Your task to perform on an android device: Go to Maps Image 0: 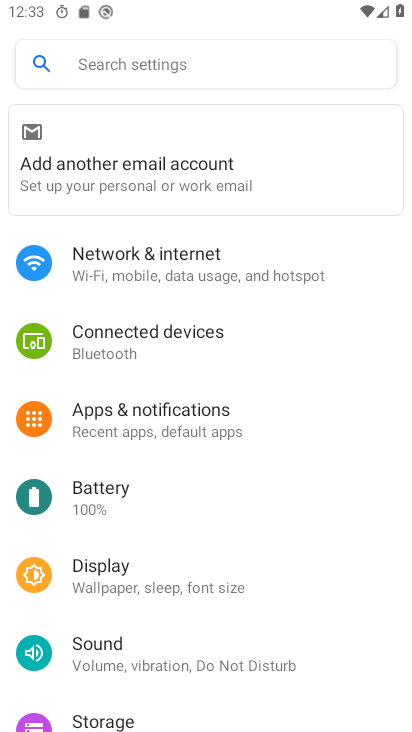
Step 0: drag from (156, 612) to (285, 145)
Your task to perform on an android device: Go to Maps Image 1: 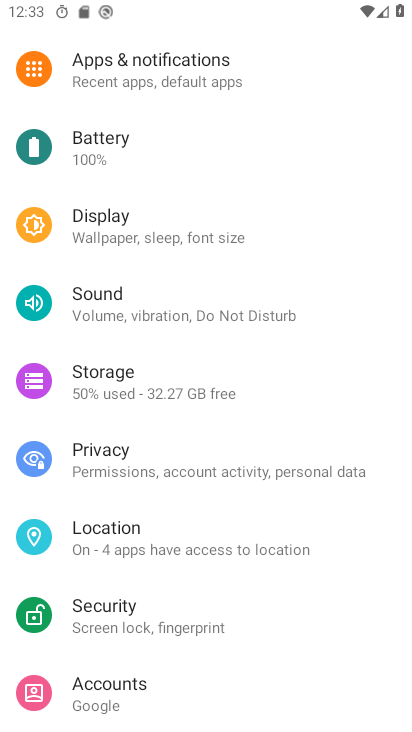
Step 1: press home button
Your task to perform on an android device: Go to Maps Image 2: 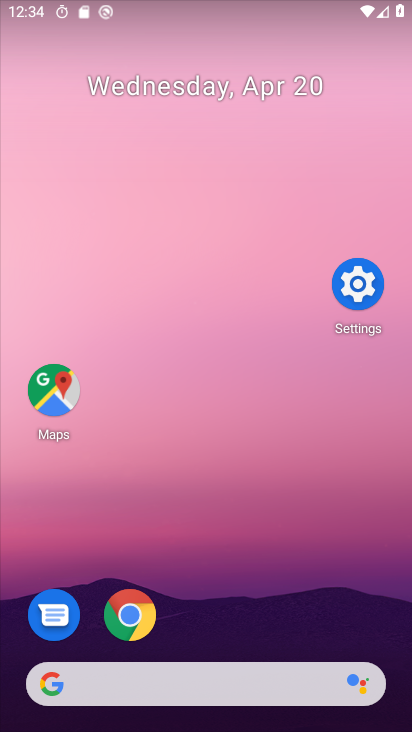
Step 2: drag from (231, 554) to (312, 318)
Your task to perform on an android device: Go to Maps Image 3: 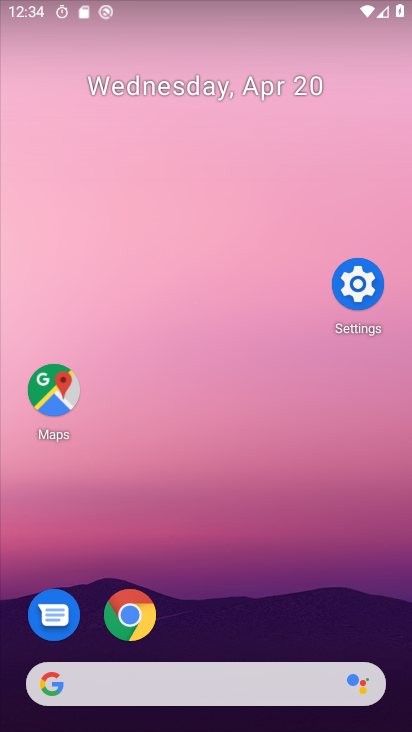
Step 3: drag from (200, 623) to (275, 327)
Your task to perform on an android device: Go to Maps Image 4: 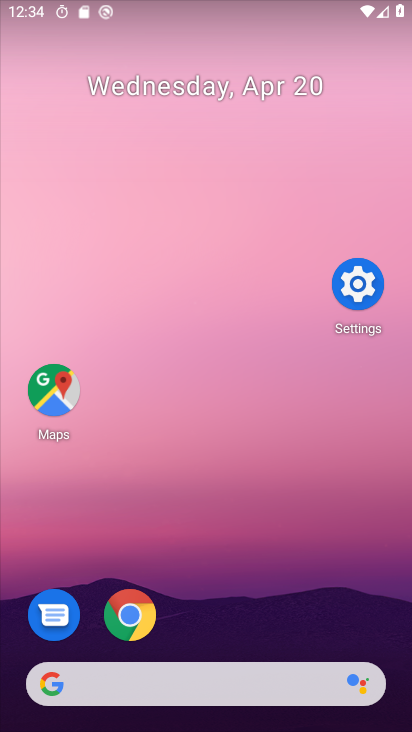
Step 4: click (54, 382)
Your task to perform on an android device: Go to Maps Image 5: 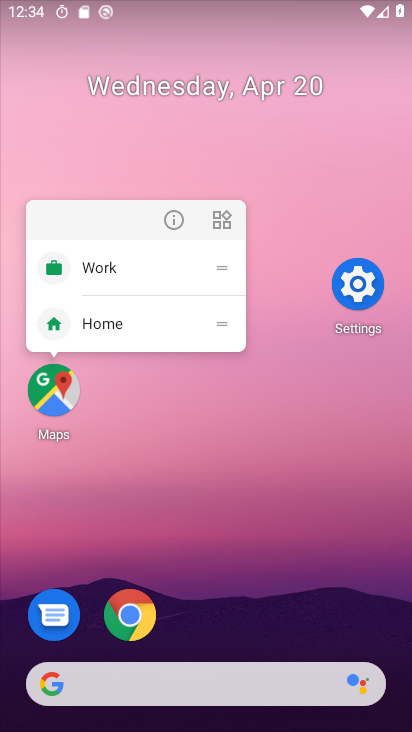
Step 5: click (174, 219)
Your task to perform on an android device: Go to Maps Image 6: 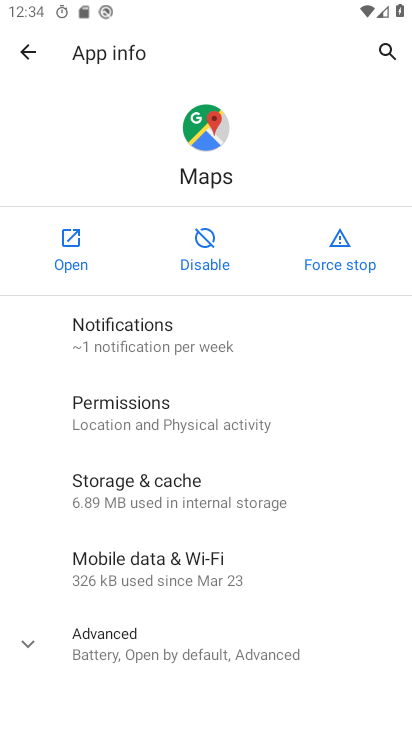
Step 6: click (62, 231)
Your task to perform on an android device: Go to Maps Image 7: 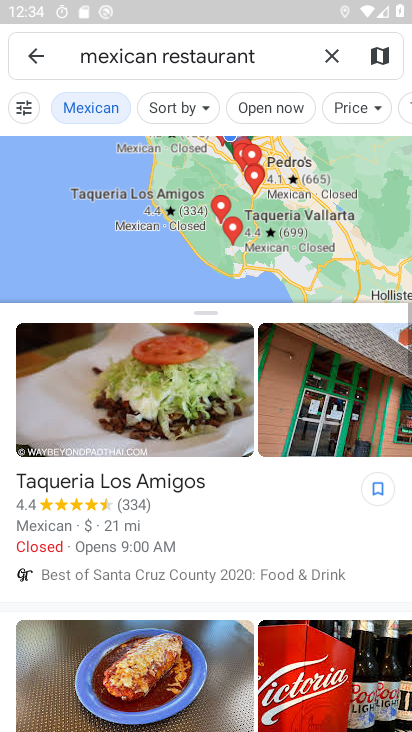
Step 7: task complete